Your task to perform on an android device: change the clock display to digital Image 0: 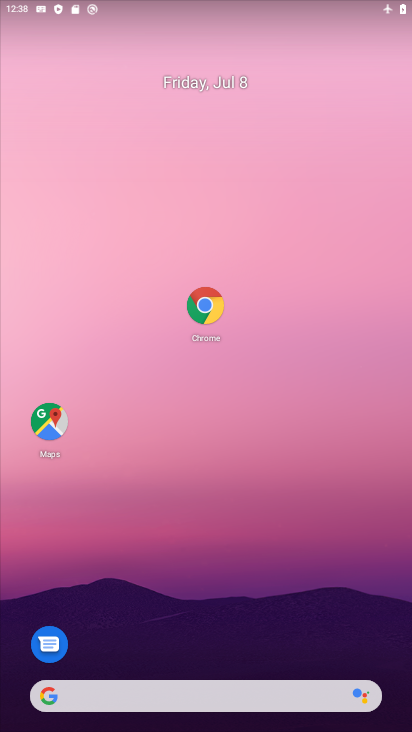
Step 0: drag from (219, 655) to (227, 245)
Your task to perform on an android device: change the clock display to digital Image 1: 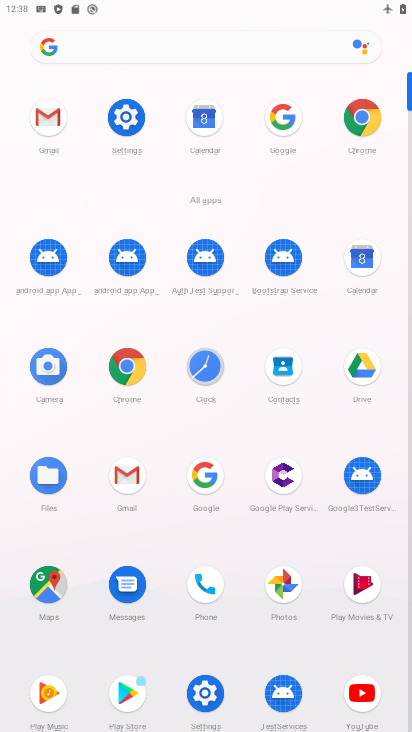
Step 1: click (209, 370)
Your task to perform on an android device: change the clock display to digital Image 2: 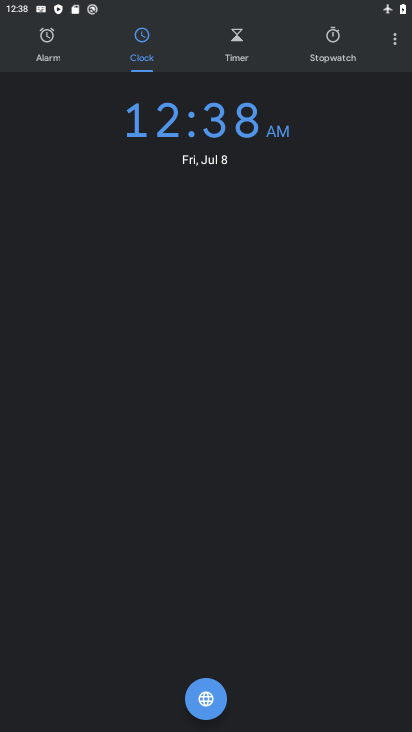
Step 2: click (392, 43)
Your task to perform on an android device: change the clock display to digital Image 3: 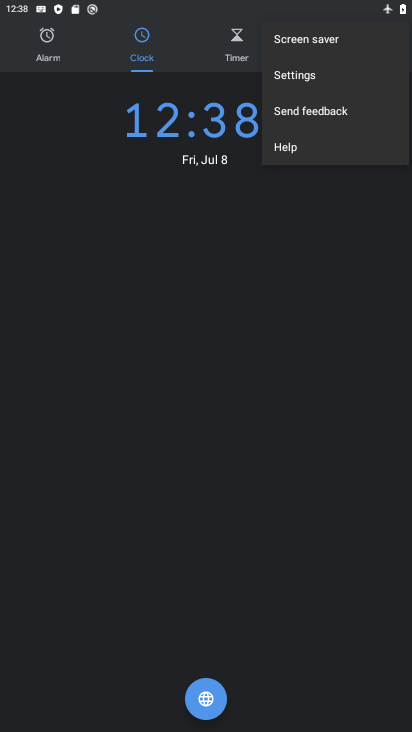
Step 3: click (318, 82)
Your task to perform on an android device: change the clock display to digital Image 4: 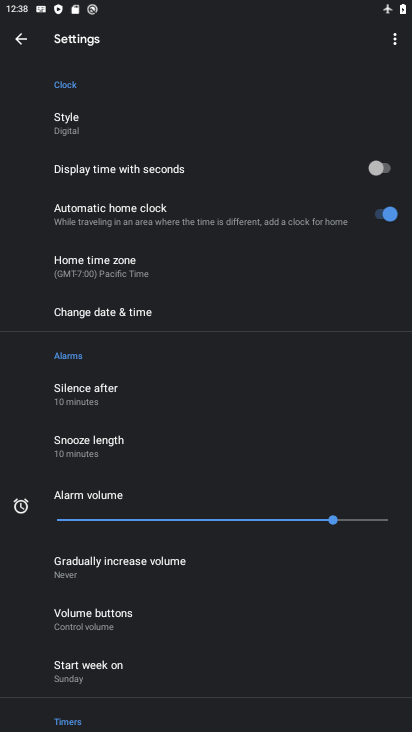
Step 4: click (74, 125)
Your task to perform on an android device: change the clock display to digital Image 5: 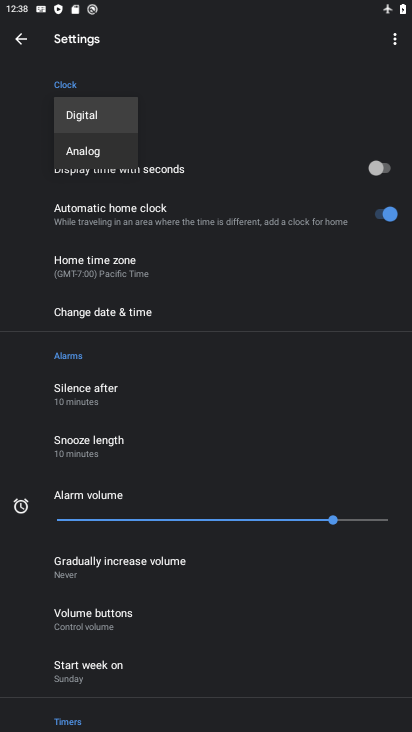
Step 5: click (85, 121)
Your task to perform on an android device: change the clock display to digital Image 6: 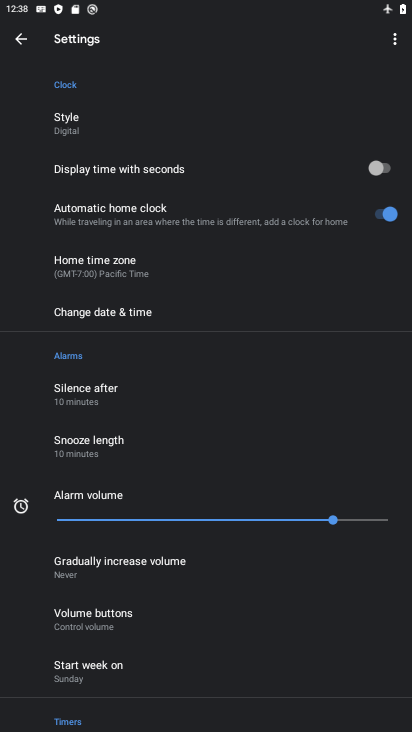
Step 6: task complete